Your task to perform on an android device: Play the last video I watched on Youtube Image 0: 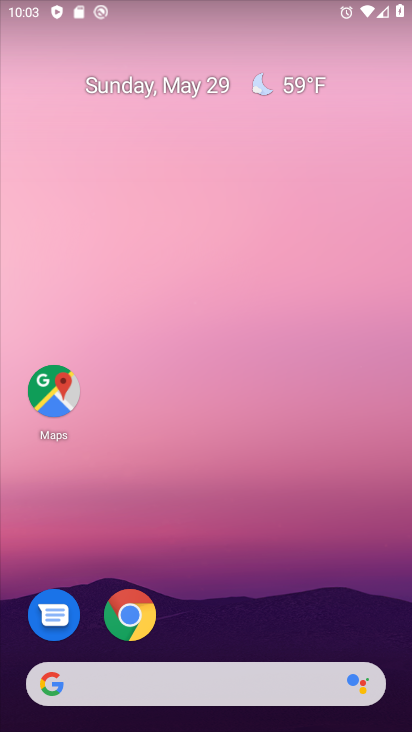
Step 0: drag from (221, 598) to (226, 43)
Your task to perform on an android device: Play the last video I watched on Youtube Image 1: 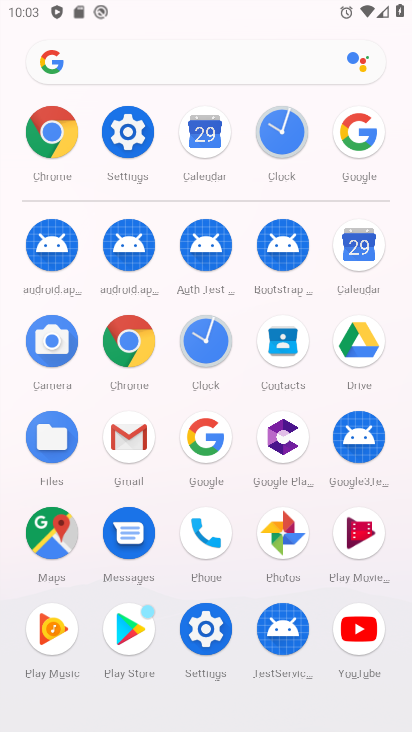
Step 1: click (356, 626)
Your task to perform on an android device: Play the last video I watched on Youtube Image 2: 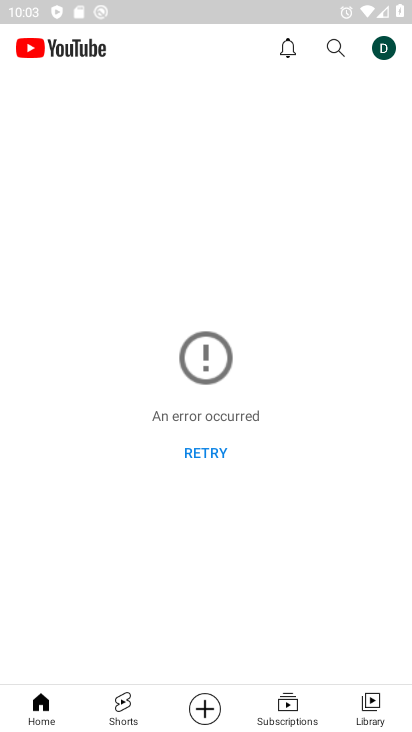
Step 2: task complete